Your task to perform on an android device: Find coffee shops on Maps Image 0: 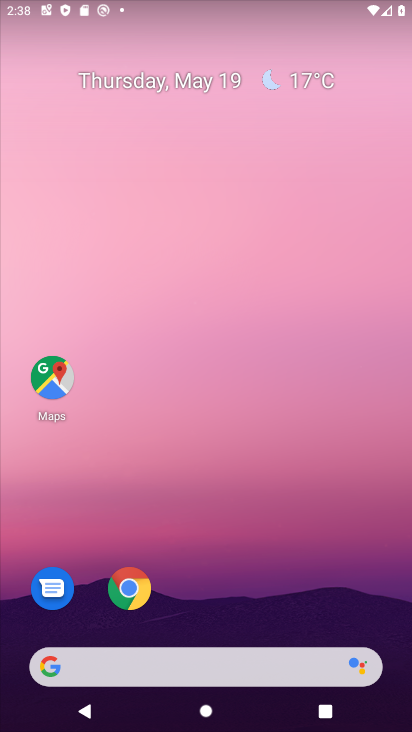
Step 0: click (136, 586)
Your task to perform on an android device: Find coffee shops on Maps Image 1: 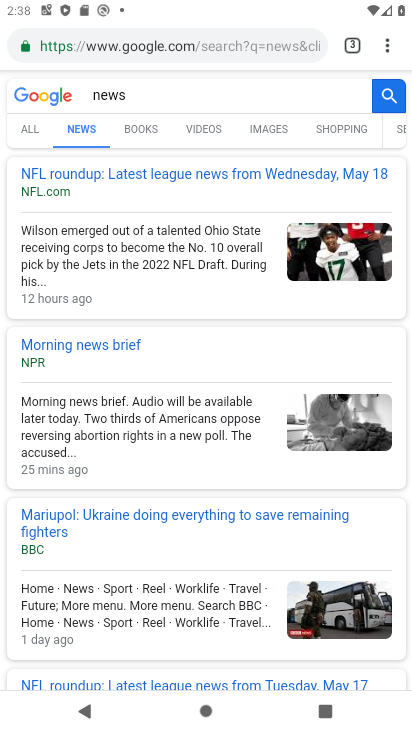
Step 1: press home button
Your task to perform on an android device: Find coffee shops on Maps Image 2: 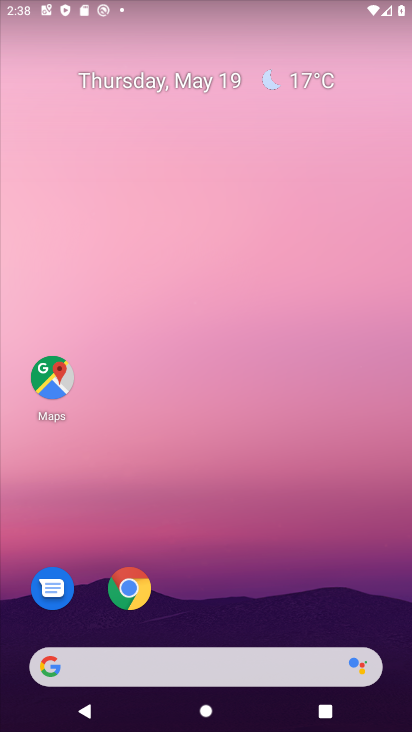
Step 2: click (50, 373)
Your task to perform on an android device: Find coffee shops on Maps Image 3: 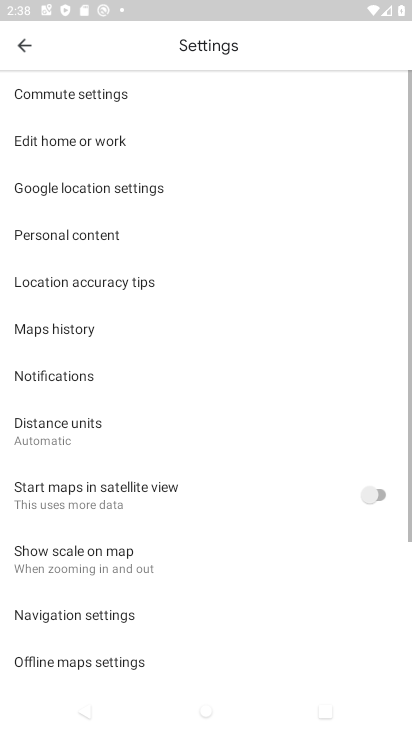
Step 3: click (18, 42)
Your task to perform on an android device: Find coffee shops on Maps Image 4: 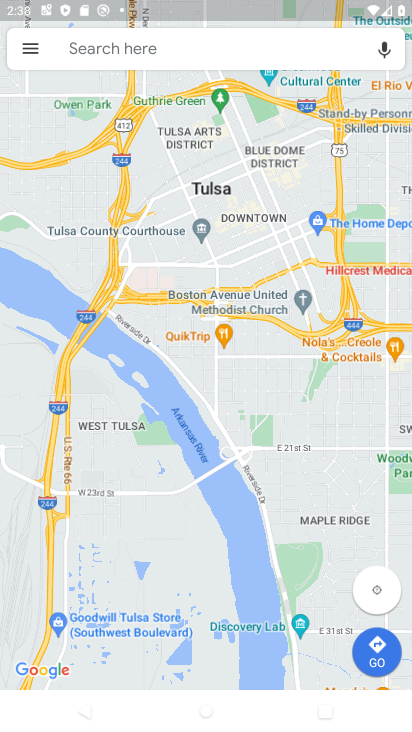
Step 4: click (116, 56)
Your task to perform on an android device: Find coffee shops on Maps Image 5: 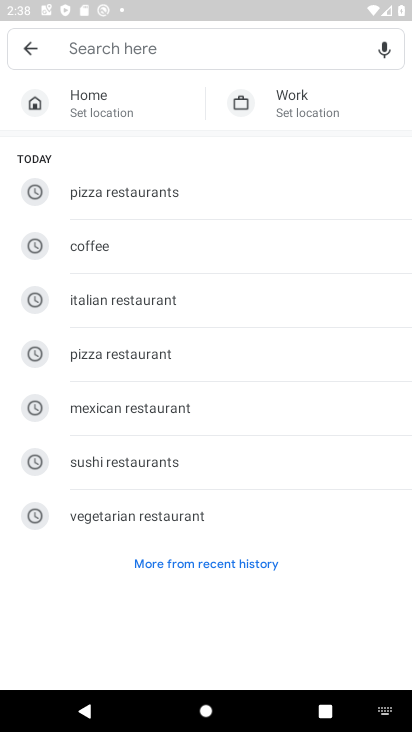
Step 5: click (74, 242)
Your task to perform on an android device: Find coffee shops on Maps Image 6: 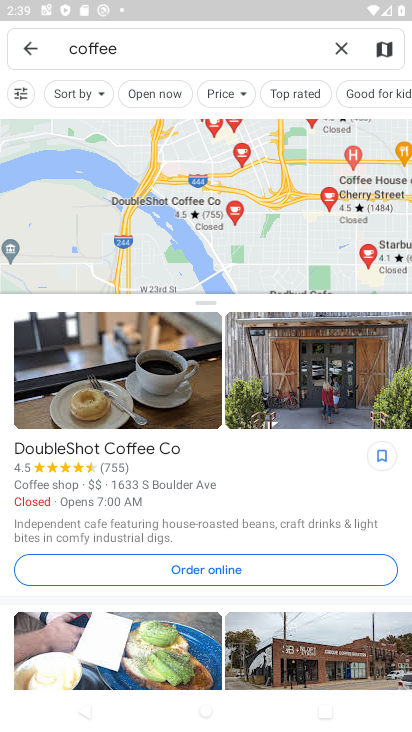
Step 6: type " shops"
Your task to perform on an android device: Find coffee shops on Maps Image 7: 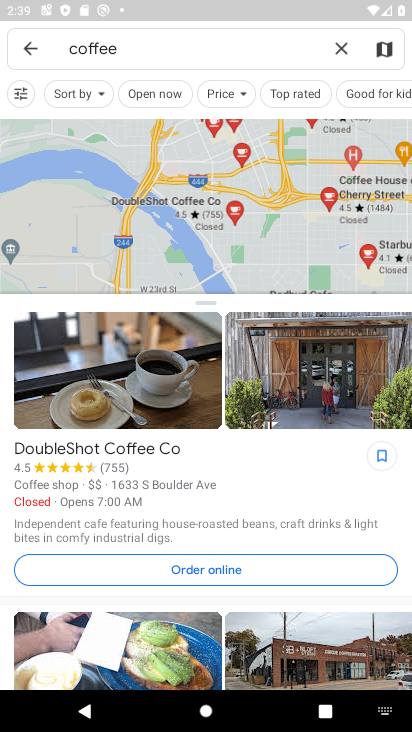
Step 7: click (248, 53)
Your task to perform on an android device: Find coffee shops on Maps Image 8: 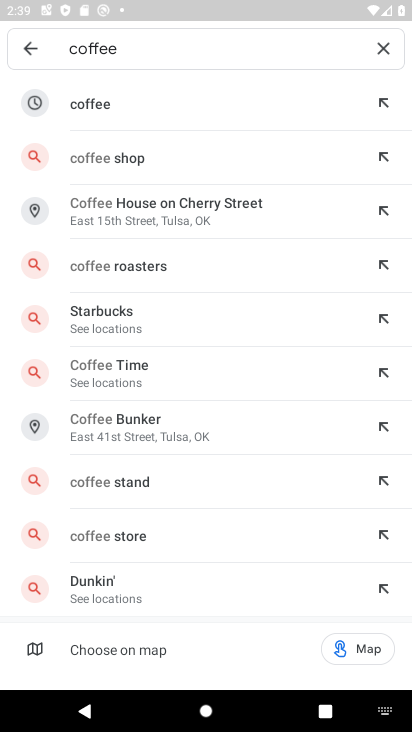
Step 8: click (163, 168)
Your task to perform on an android device: Find coffee shops on Maps Image 9: 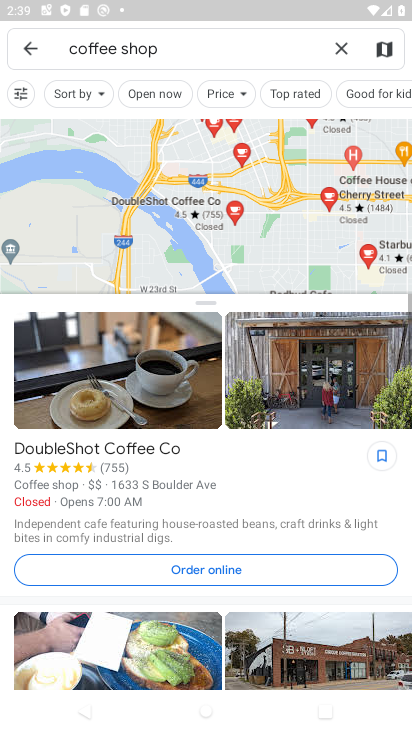
Step 9: task complete